Your task to perform on an android device: When is my next appointment? Image 0: 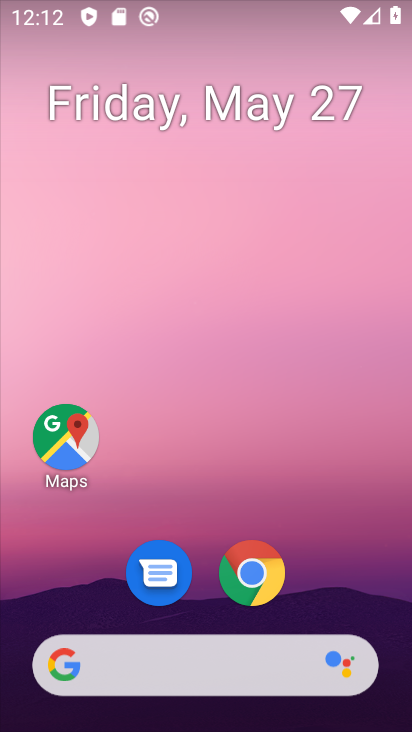
Step 0: click (332, 178)
Your task to perform on an android device: When is my next appointment? Image 1: 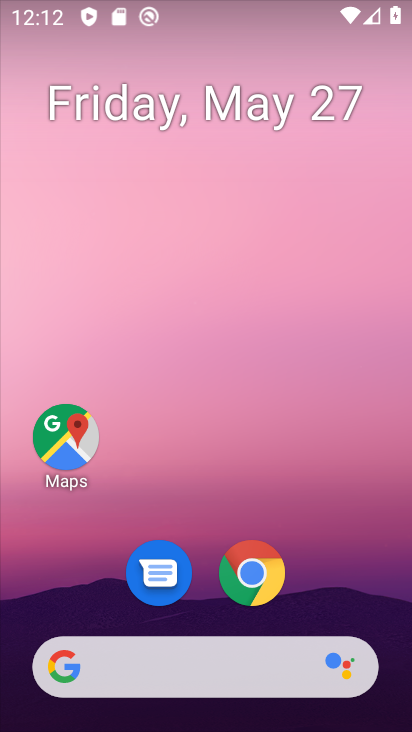
Step 1: drag from (354, 566) to (305, 139)
Your task to perform on an android device: When is my next appointment? Image 2: 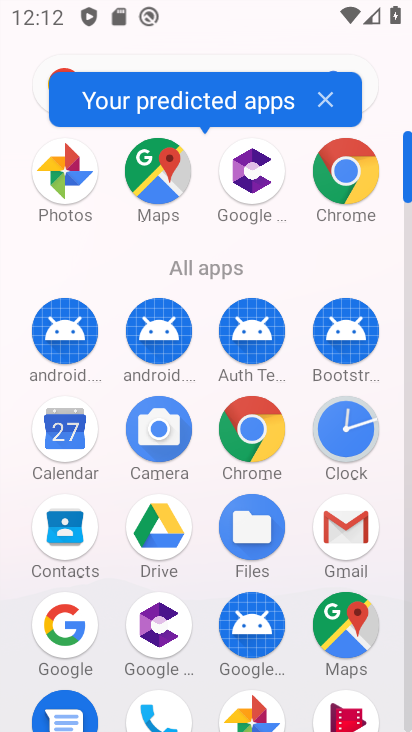
Step 2: click (40, 428)
Your task to perform on an android device: When is my next appointment? Image 3: 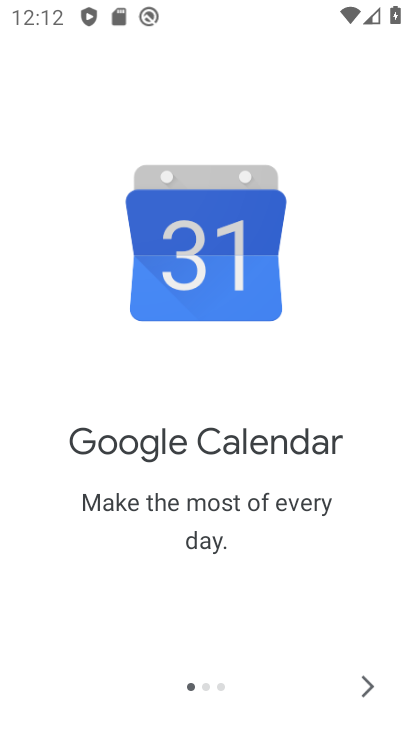
Step 3: click (369, 684)
Your task to perform on an android device: When is my next appointment? Image 4: 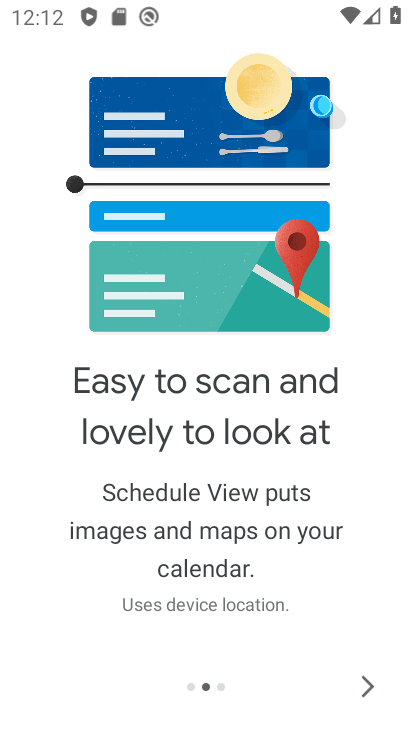
Step 4: click (369, 684)
Your task to perform on an android device: When is my next appointment? Image 5: 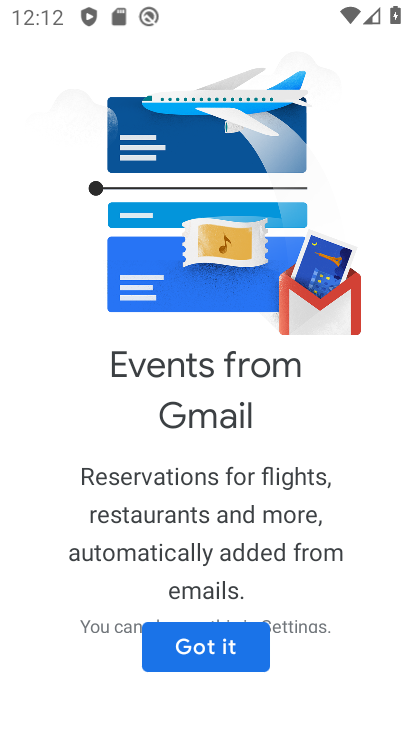
Step 5: click (249, 655)
Your task to perform on an android device: When is my next appointment? Image 6: 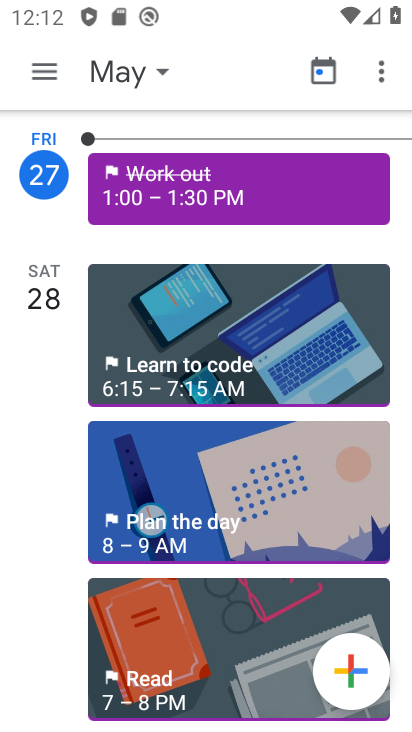
Step 6: task complete